Your task to perform on an android device: turn off wifi Image 0: 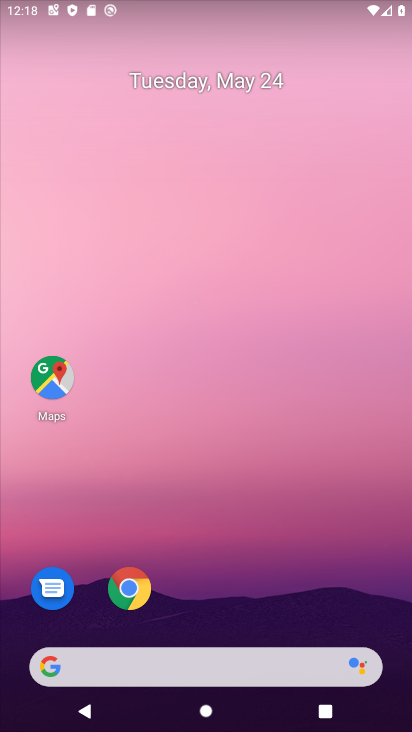
Step 0: drag from (185, 600) to (184, 122)
Your task to perform on an android device: turn off wifi Image 1: 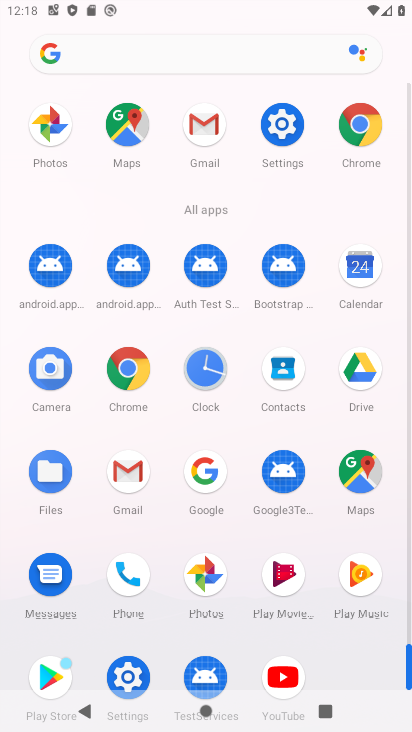
Step 1: click (281, 137)
Your task to perform on an android device: turn off wifi Image 2: 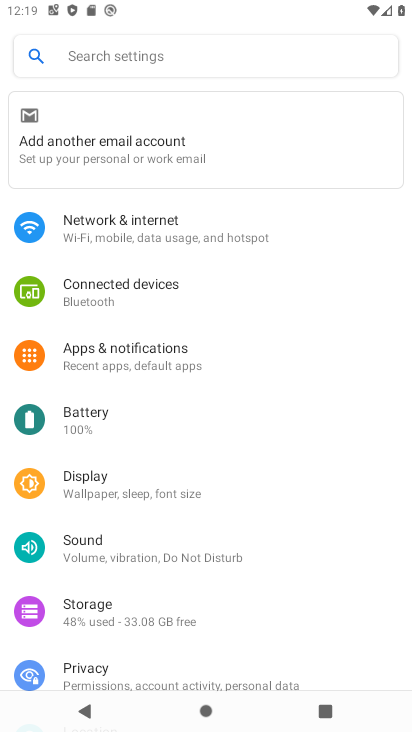
Step 2: click (117, 220)
Your task to perform on an android device: turn off wifi Image 3: 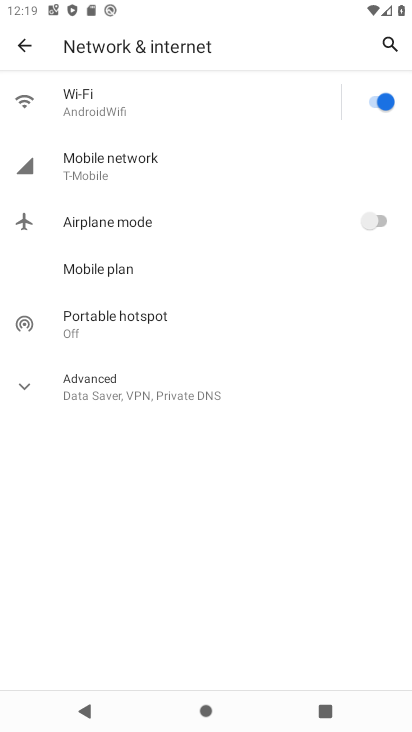
Step 3: click (368, 104)
Your task to perform on an android device: turn off wifi Image 4: 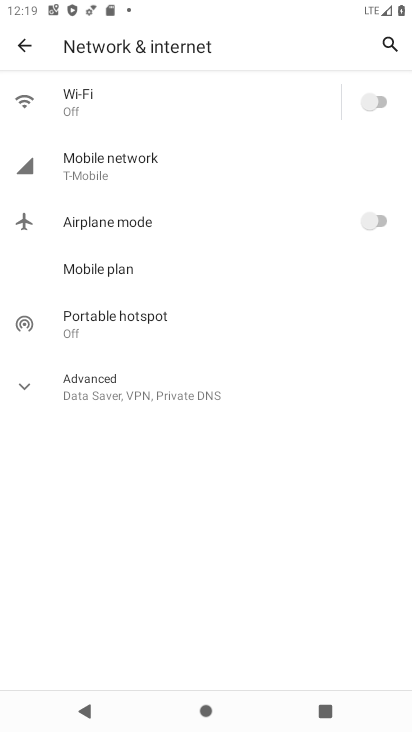
Step 4: task complete